Your task to perform on an android device: Open display settings Image 0: 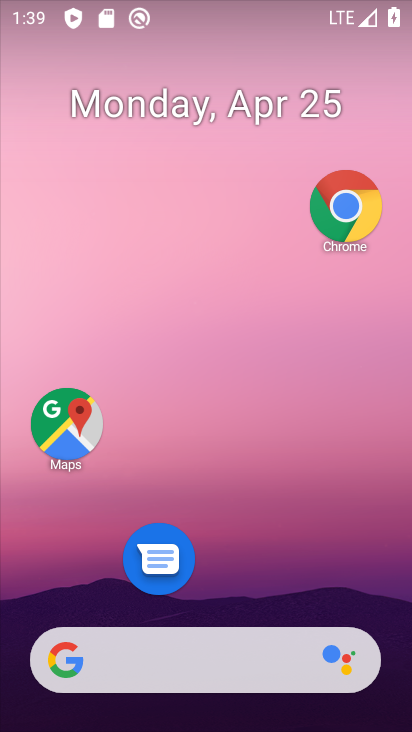
Step 0: drag from (229, 589) to (286, 115)
Your task to perform on an android device: Open display settings Image 1: 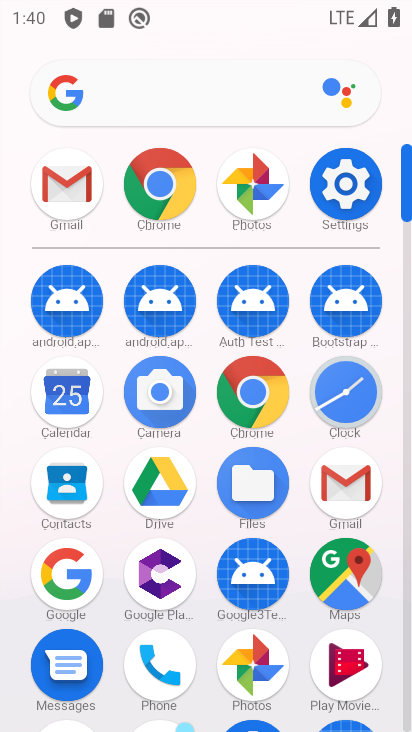
Step 1: click (356, 163)
Your task to perform on an android device: Open display settings Image 2: 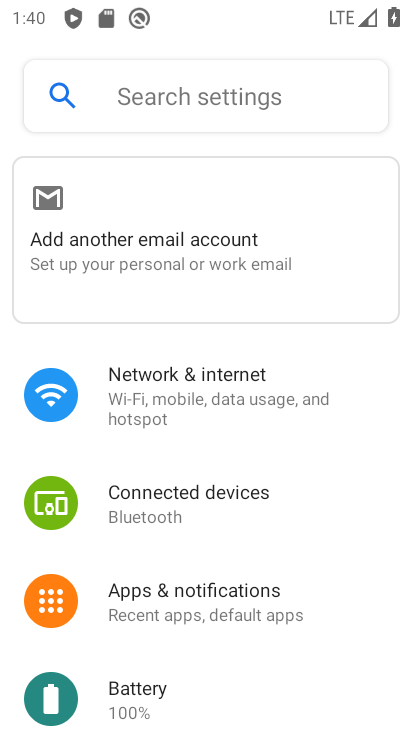
Step 2: drag from (245, 357) to (280, 177)
Your task to perform on an android device: Open display settings Image 3: 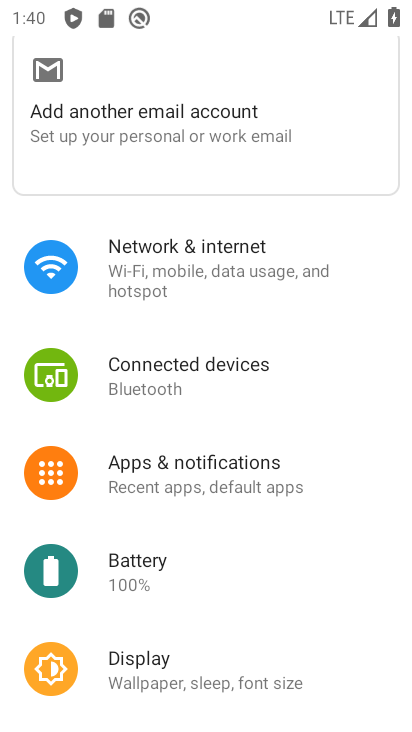
Step 3: click (185, 672)
Your task to perform on an android device: Open display settings Image 4: 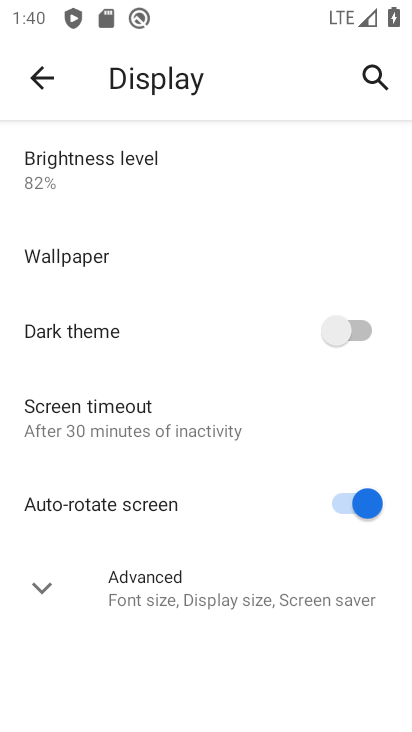
Step 4: task complete